Your task to perform on an android device: show emergency info Image 0: 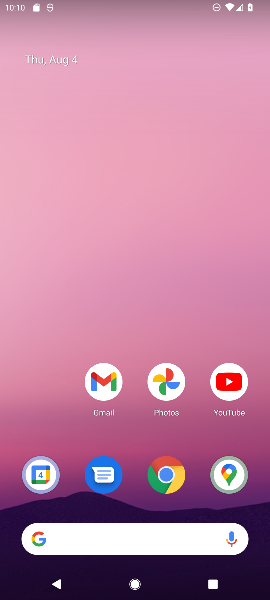
Step 0: drag from (135, 493) to (148, 10)
Your task to perform on an android device: show emergency info Image 1: 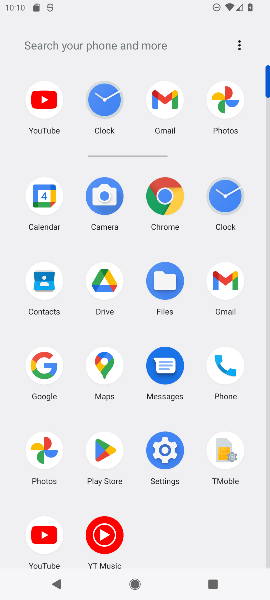
Step 1: click (166, 446)
Your task to perform on an android device: show emergency info Image 2: 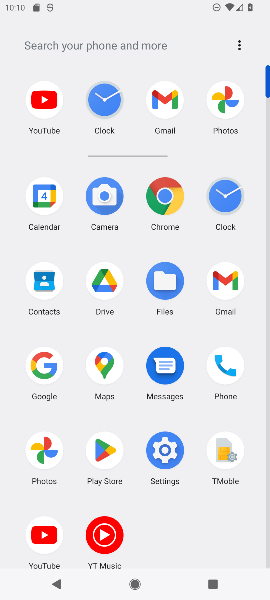
Step 2: click (166, 446)
Your task to perform on an android device: show emergency info Image 3: 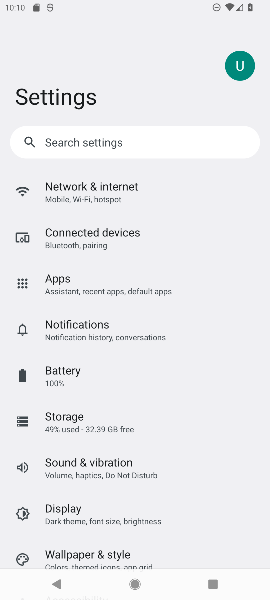
Step 3: drag from (147, 455) to (115, 236)
Your task to perform on an android device: show emergency info Image 4: 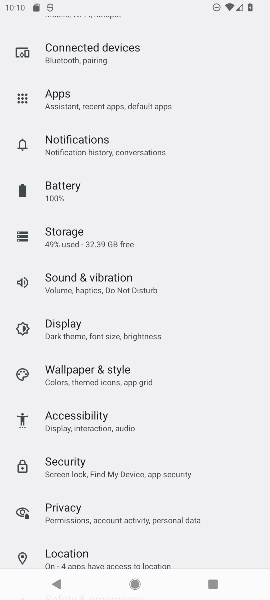
Step 4: drag from (115, 507) to (135, 223)
Your task to perform on an android device: show emergency info Image 5: 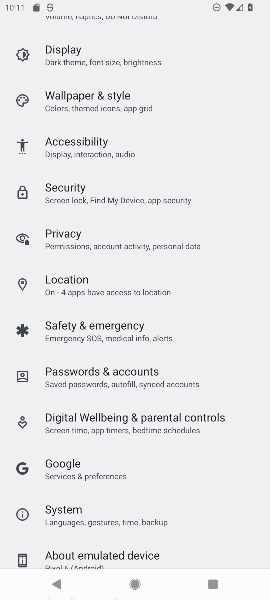
Step 5: drag from (97, 517) to (104, 186)
Your task to perform on an android device: show emergency info Image 6: 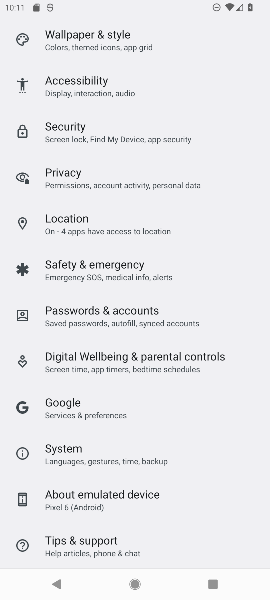
Step 6: click (121, 500)
Your task to perform on an android device: show emergency info Image 7: 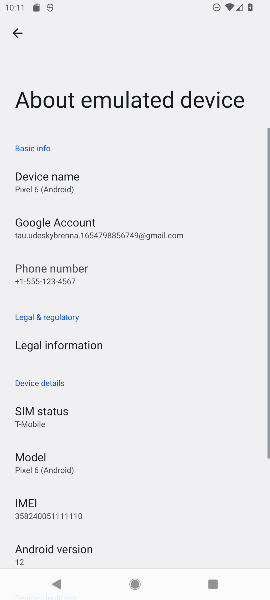
Step 7: drag from (136, 518) to (125, 202)
Your task to perform on an android device: show emergency info Image 8: 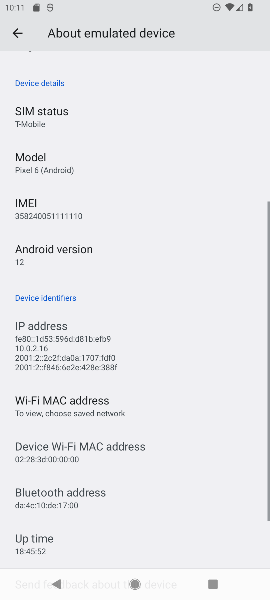
Step 8: drag from (142, 450) to (136, 201)
Your task to perform on an android device: show emergency info Image 9: 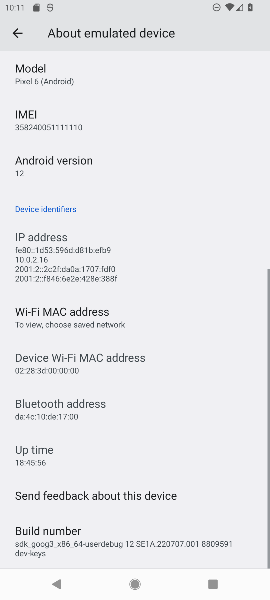
Step 9: drag from (159, 178) to (198, 539)
Your task to perform on an android device: show emergency info Image 10: 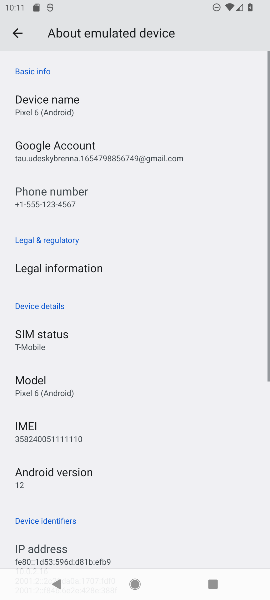
Step 10: click (17, 27)
Your task to perform on an android device: show emergency info Image 11: 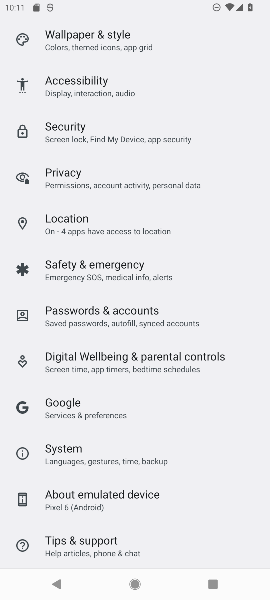
Step 11: task complete